Your task to perform on an android device: toggle notification dots Image 0: 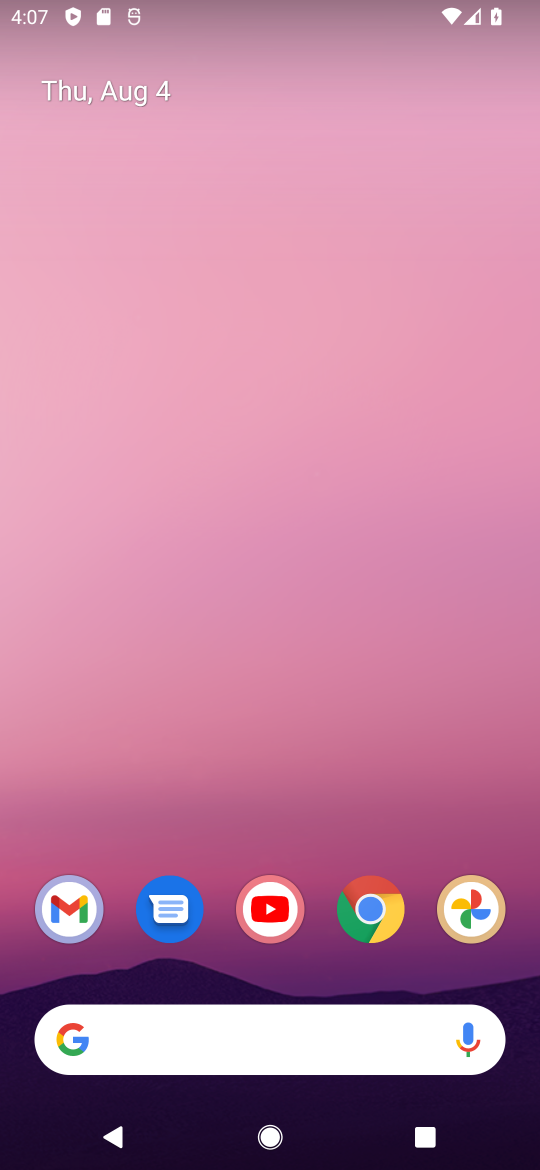
Step 0: press home button
Your task to perform on an android device: toggle notification dots Image 1: 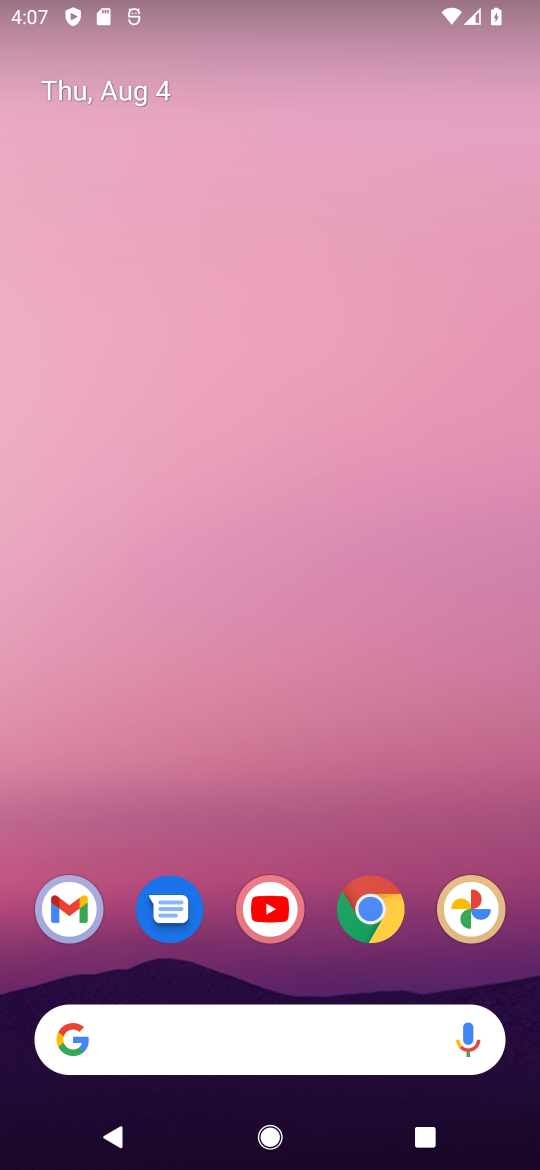
Step 1: drag from (536, 720) to (536, 401)
Your task to perform on an android device: toggle notification dots Image 2: 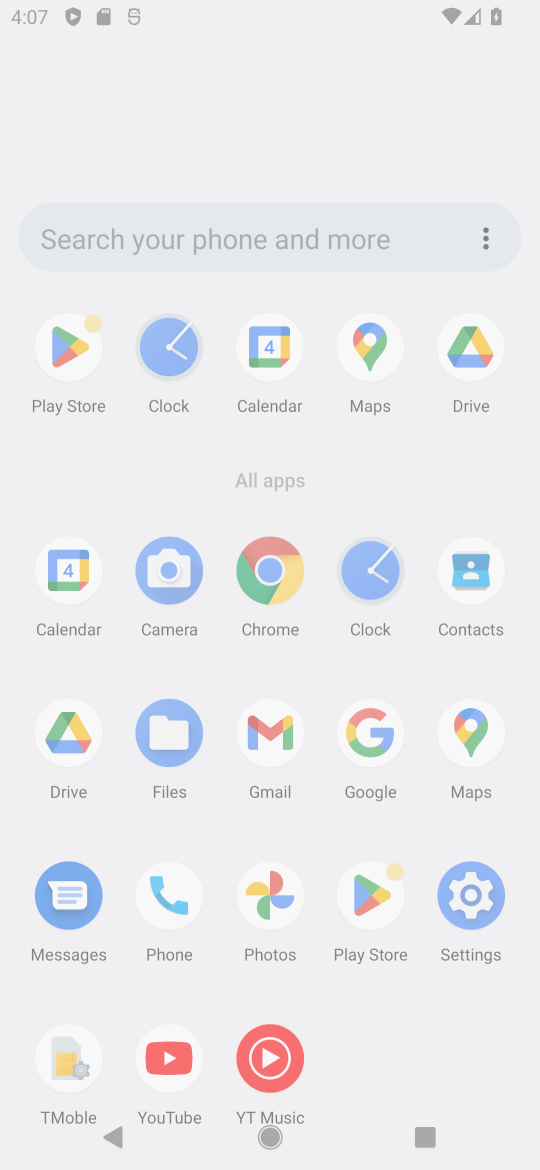
Step 2: drag from (411, 839) to (402, 138)
Your task to perform on an android device: toggle notification dots Image 3: 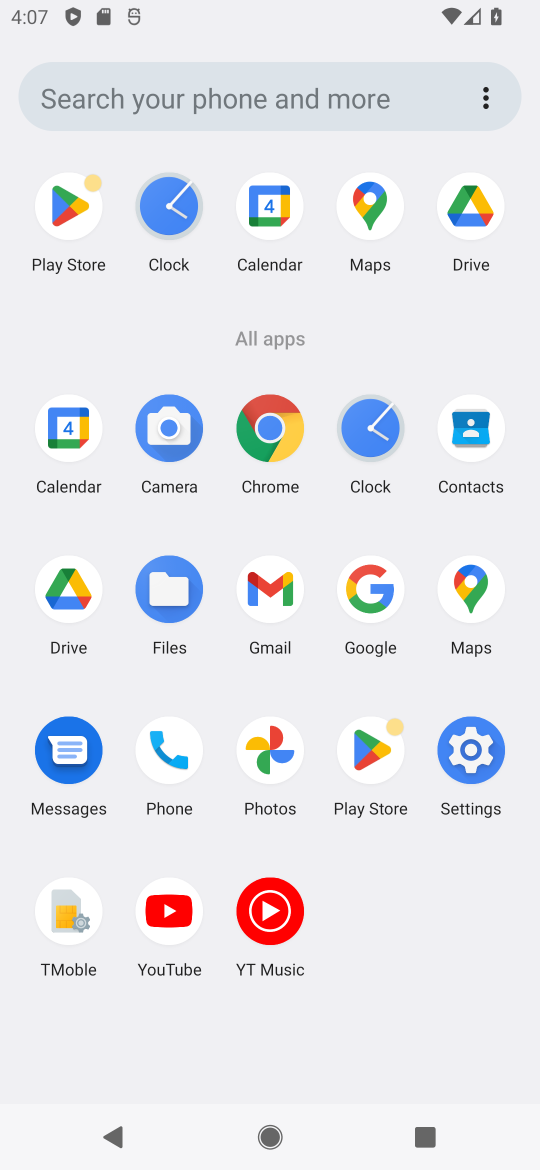
Step 3: click (487, 747)
Your task to perform on an android device: toggle notification dots Image 4: 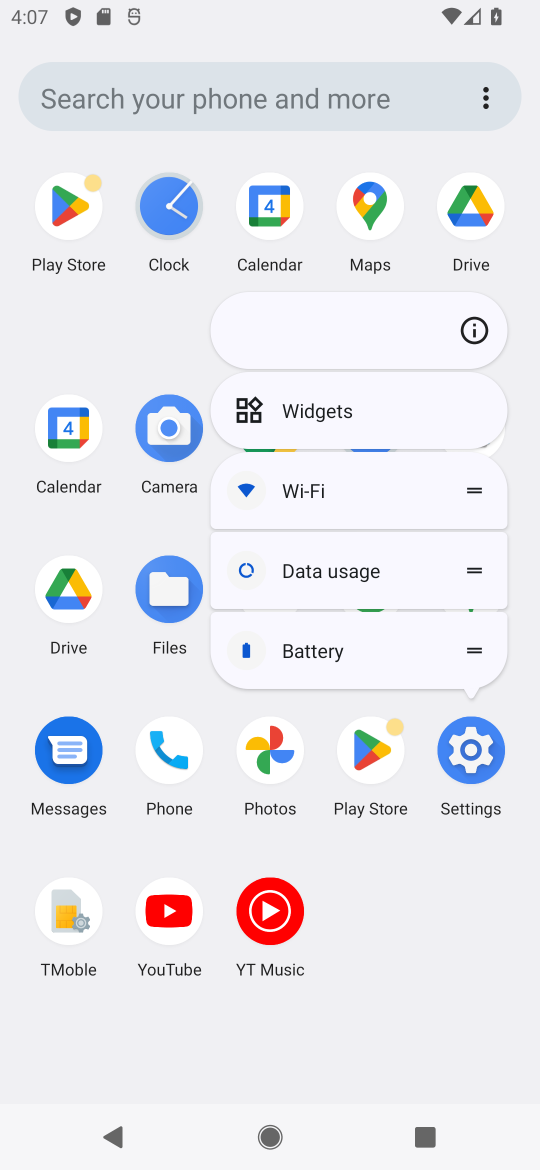
Step 4: click (471, 753)
Your task to perform on an android device: toggle notification dots Image 5: 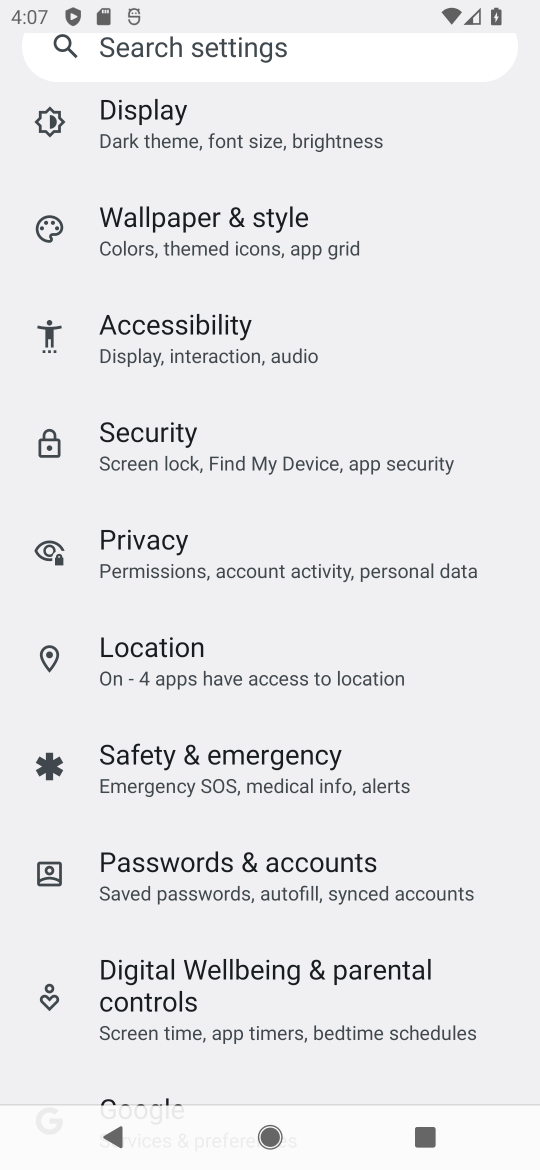
Step 5: drag from (313, 175) to (424, 1144)
Your task to perform on an android device: toggle notification dots Image 6: 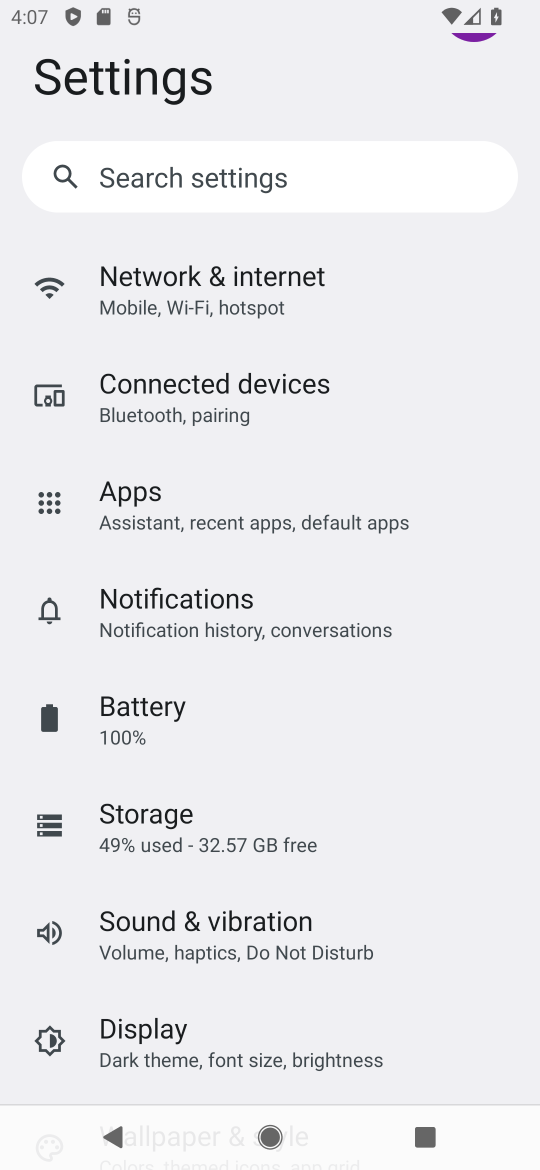
Step 6: click (189, 634)
Your task to perform on an android device: toggle notification dots Image 7: 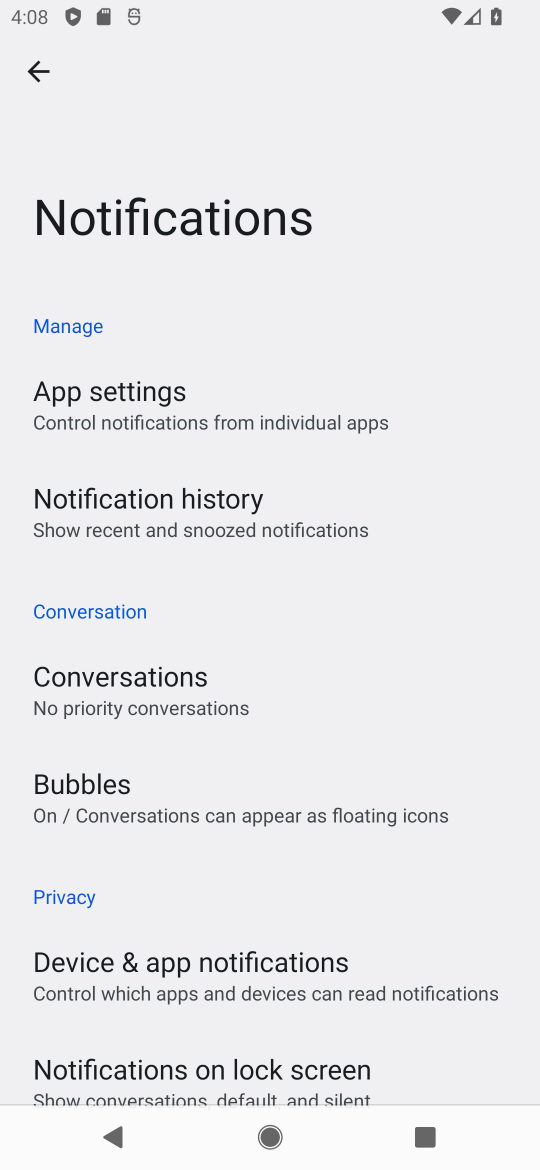
Step 7: drag from (222, 892) to (261, 462)
Your task to perform on an android device: toggle notification dots Image 8: 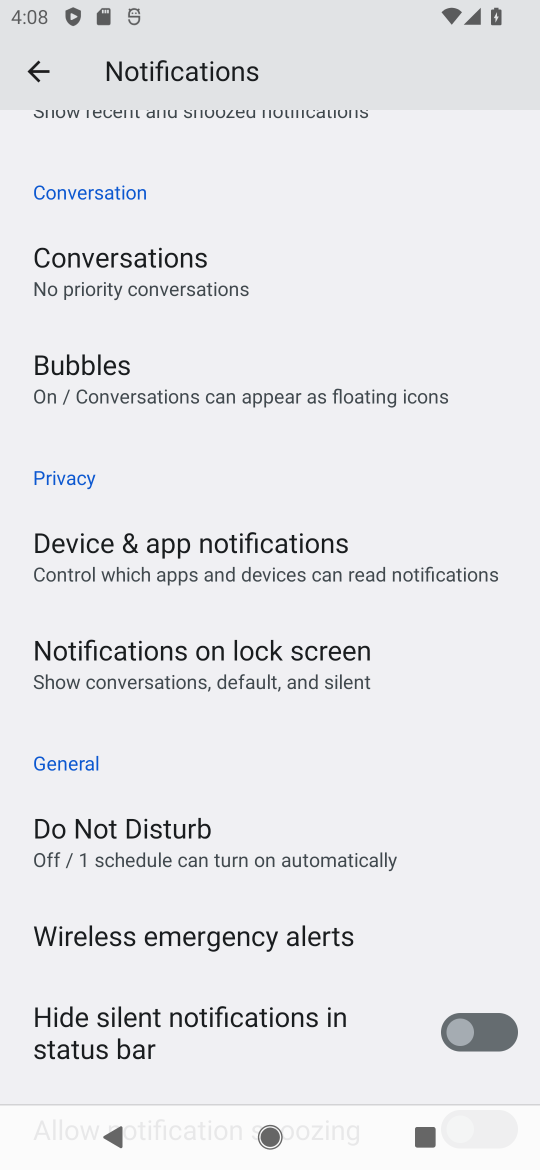
Step 8: click (212, 548)
Your task to perform on an android device: toggle notification dots Image 9: 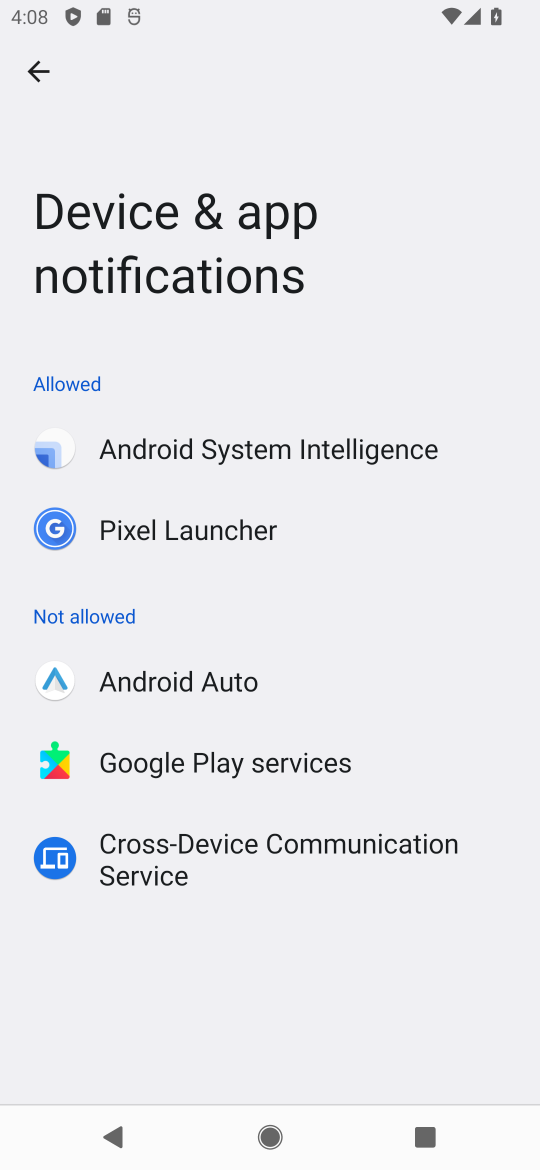
Step 9: drag from (345, 993) to (316, 463)
Your task to perform on an android device: toggle notification dots Image 10: 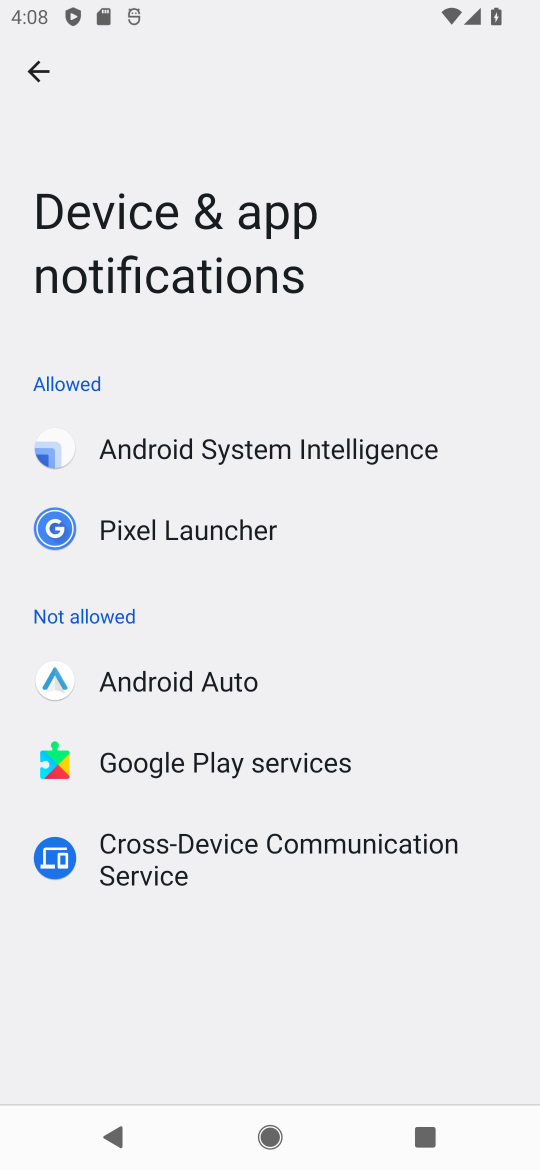
Step 10: click (34, 65)
Your task to perform on an android device: toggle notification dots Image 11: 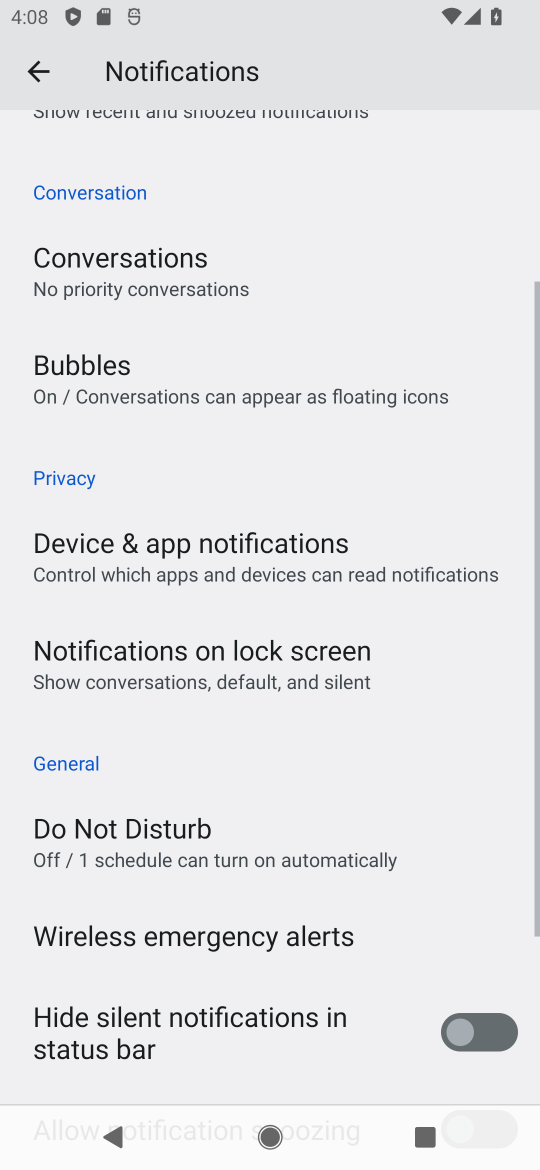
Step 11: click (29, 58)
Your task to perform on an android device: toggle notification dots Image 12: 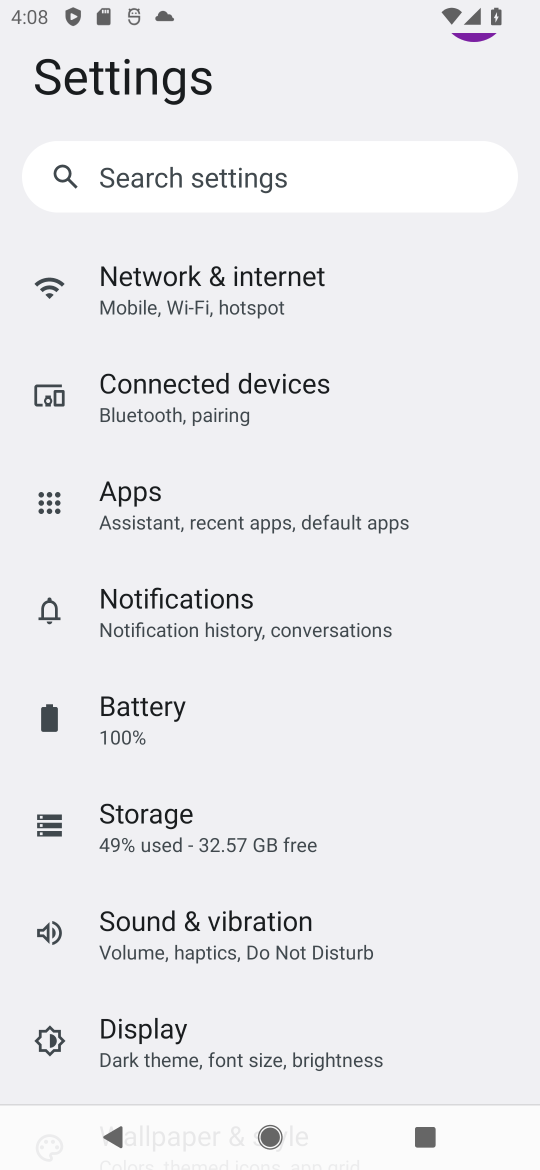
Step 12: click (216, 616)
Your task to perform on an android device: toggle notification dots Image 13: 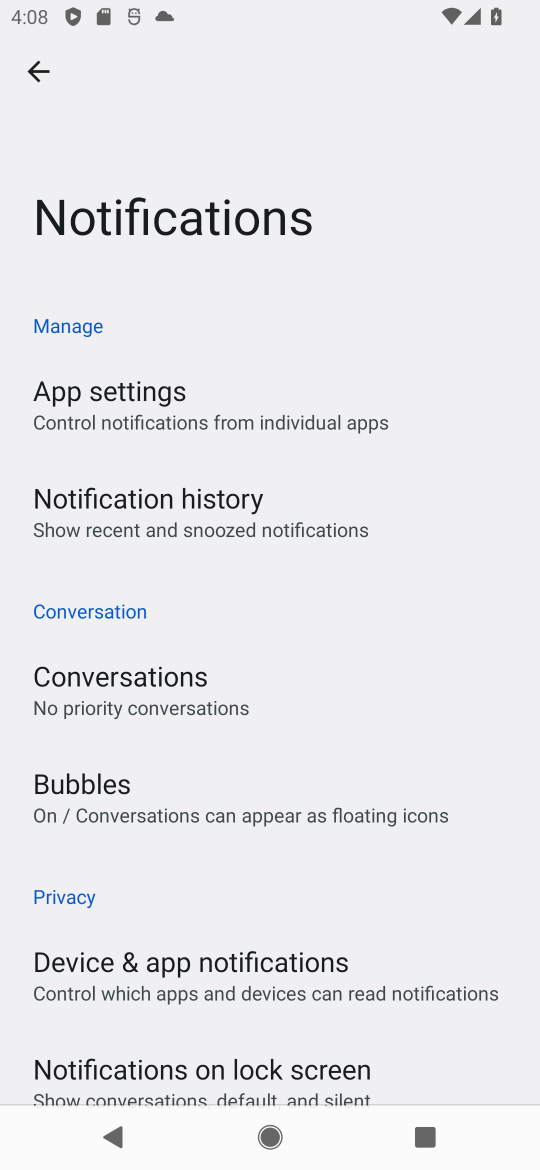
Step 13: drag from (322, 904) to (350, 371)
Your task to perform on an android device: toggle notification dots Image 14: 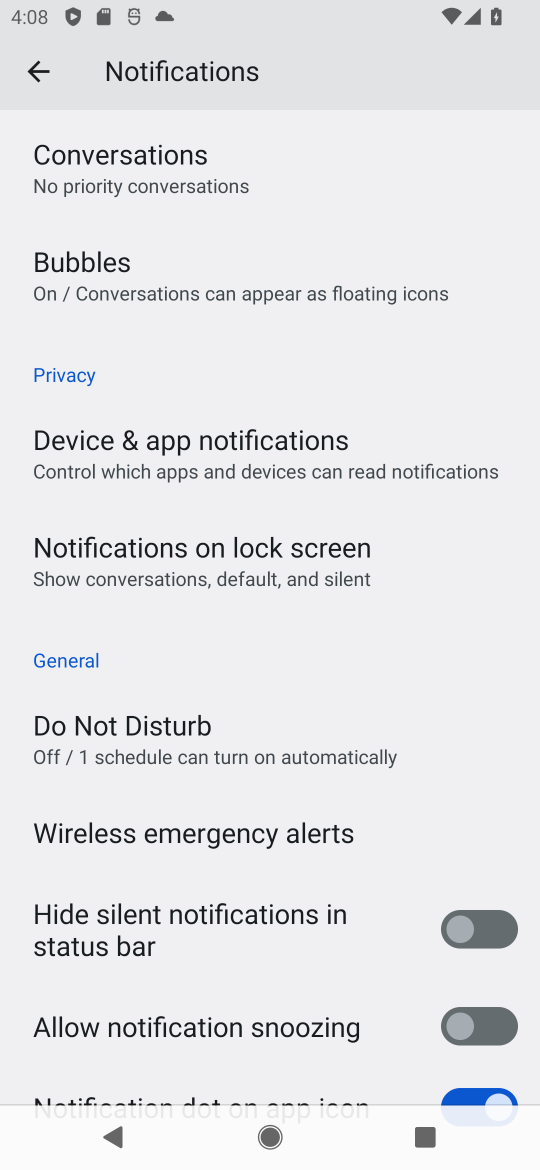
Step 14: drag from (419, 747) to (389, 281)
Your task to perform on an android device: toggle notification dots Image 15: 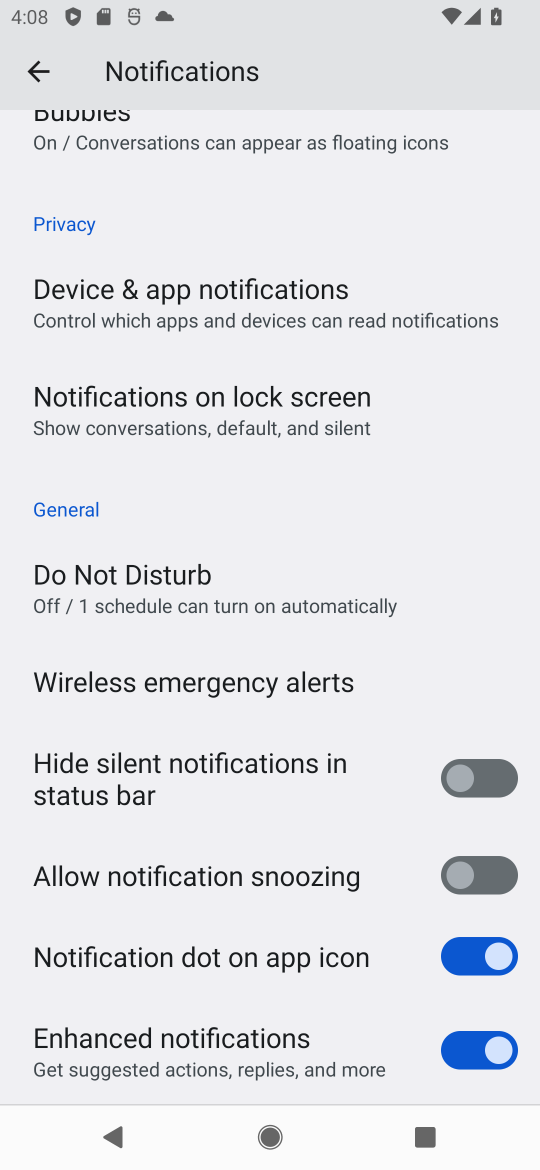
Step 15: drag from (261, 1029) to (354, 838)
Your task to perform on an android device: toggle notification dots Image 16: 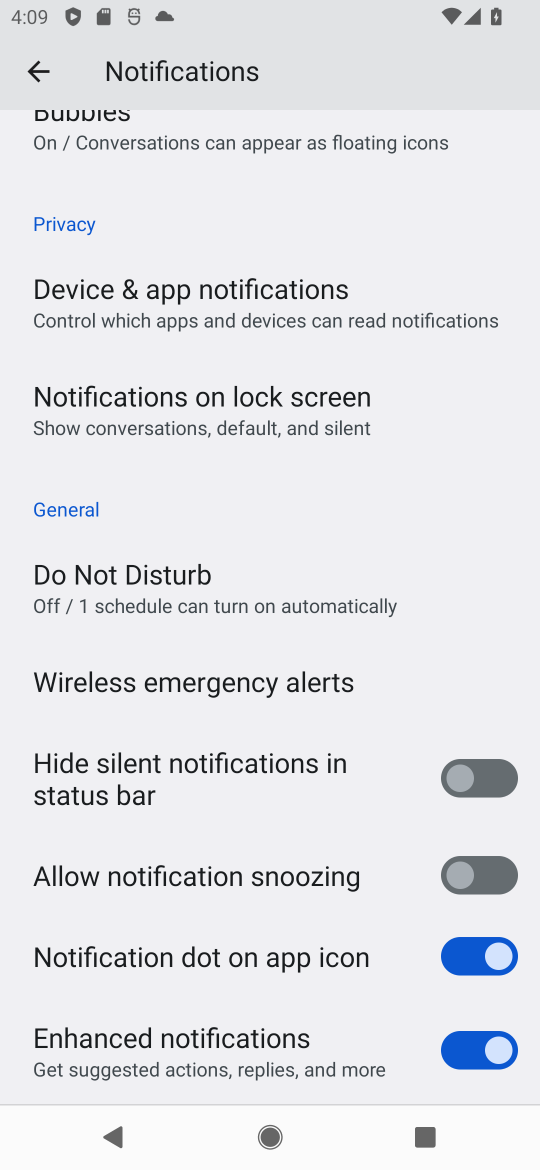
Step 16: click (362, 760)
Your task to perform on an android device: toggle notification dots Image 17: 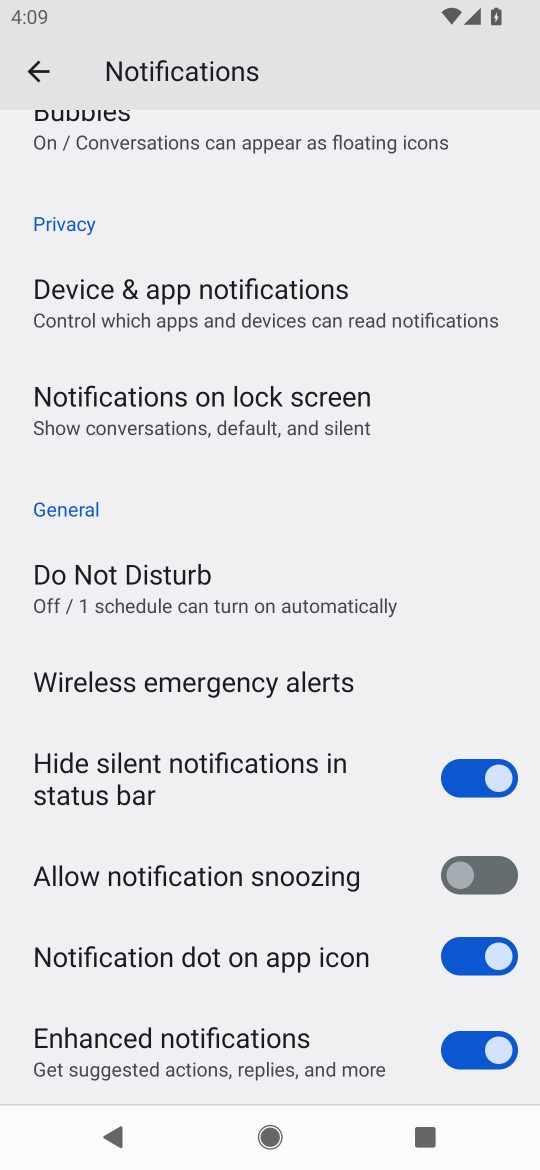
Step 17: drag from (354, 1020) to (359, 249)
Your task to perform on an android device: toggle notification dots Image 18: 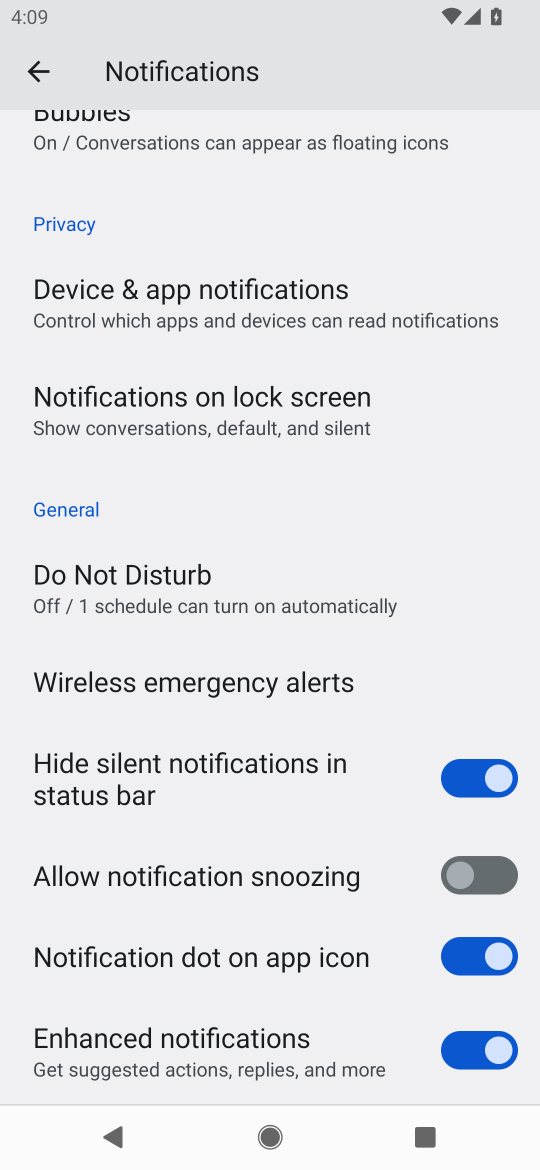
Step 18: click (473, 947)
Your task to perform on an android device: toggle notification dots Image 19: 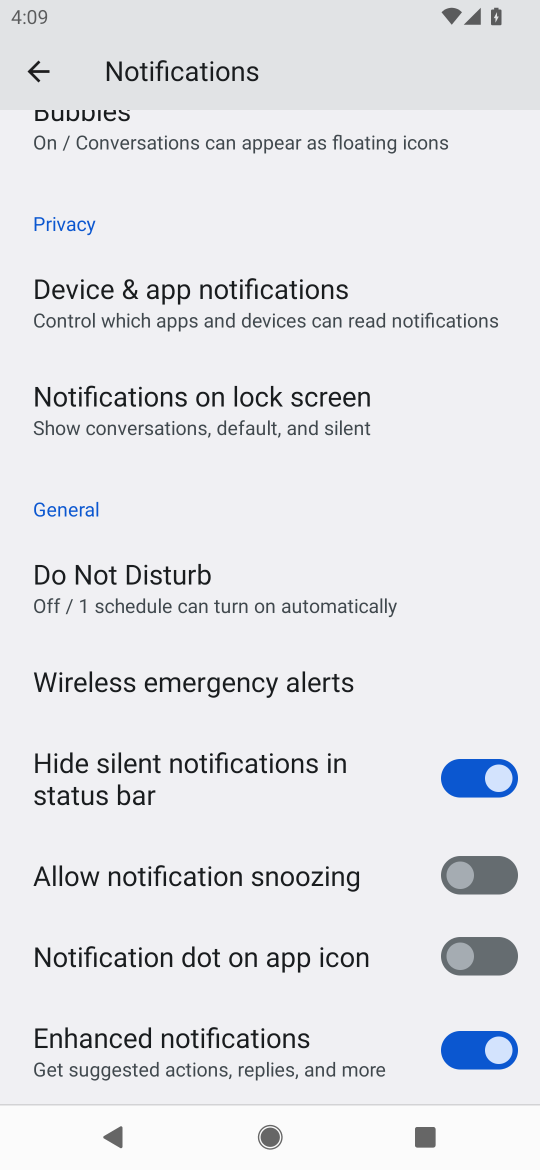
Step 19: task complete